Your task to perform on an android device: turn on priority inbox in the gmail app Image 0: 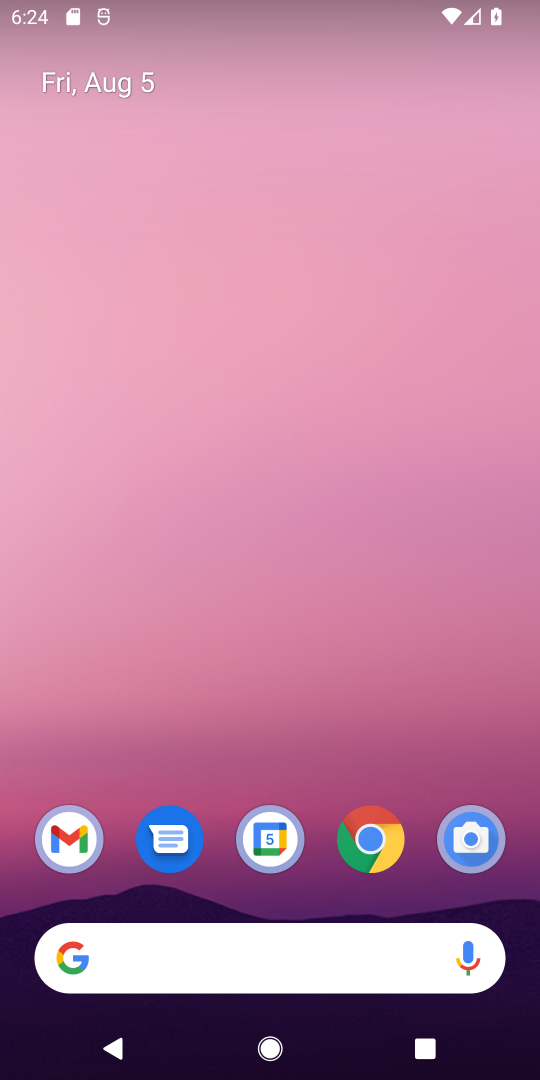
Step 0: click (48, 834)
Your task to perform on an android device: turn on priority inbox in the gmail app Image 1: 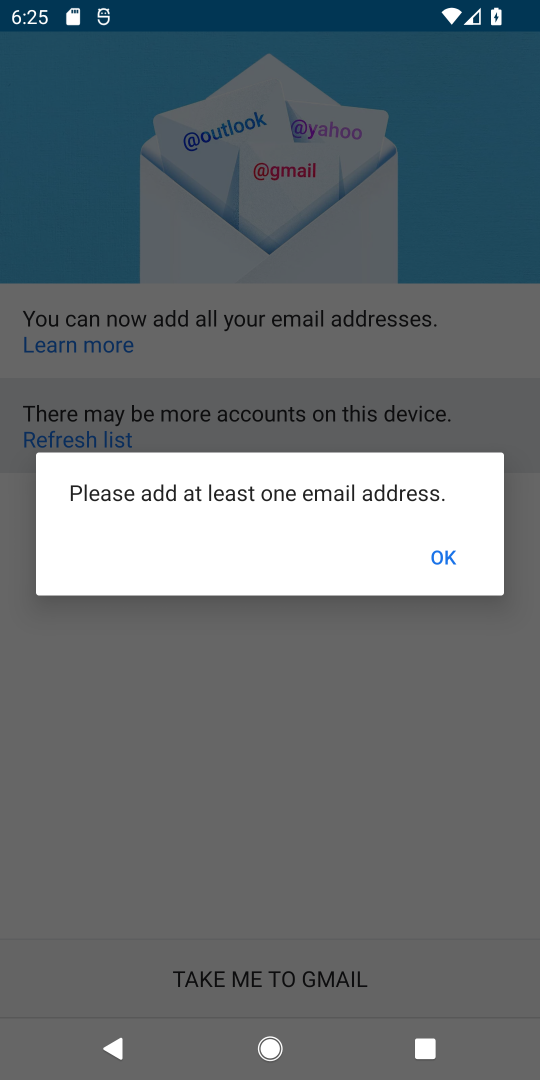
Step 1: click (443, 559)
Your task to perform on an android device: turn on priority inbox in the gmail app Image 2: 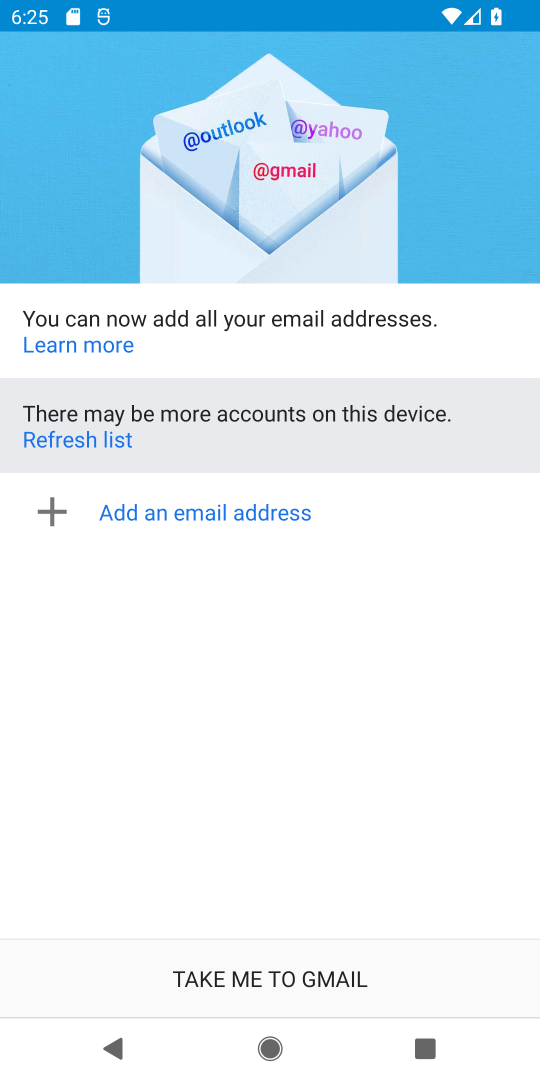
Step 2: task complete